Your task to perform on an android device: What's the weather today? Image 0: 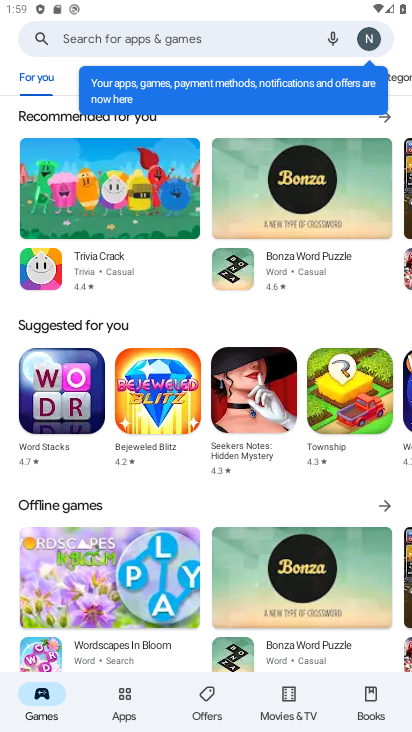
Step 0: press back button
Your task to perform on an android device: What's the weather today? Image 1: 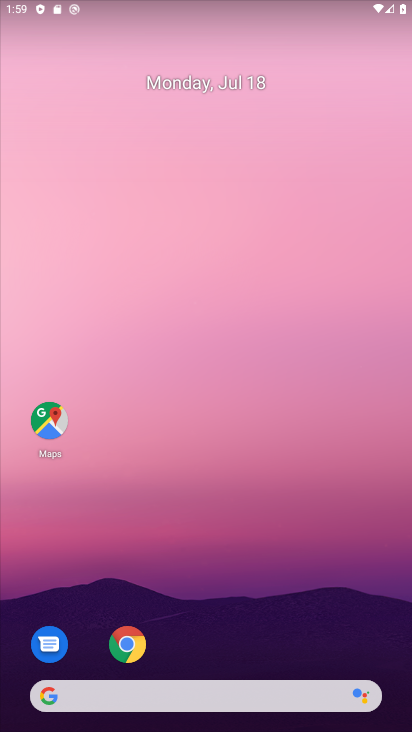
Step 1: drag from (278, 694) to (238, 255)
Your task to perform on an android device: What's the weather today? Image 2: 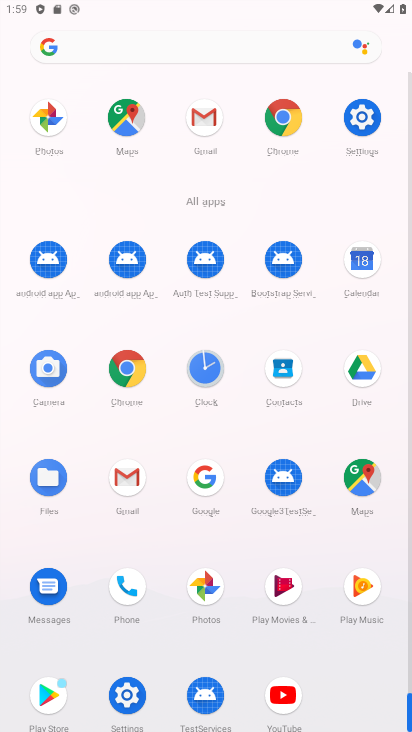
Step 2: click (295, 113)
Your task to perform on an android device: What's the weather today? Image 3: 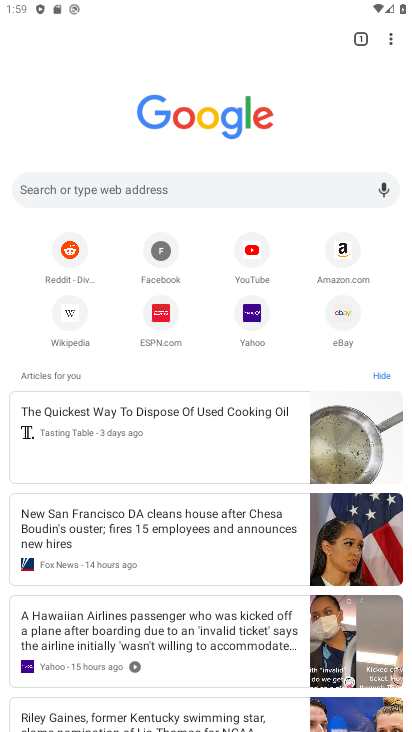
Step 3: click (57, 179)
Your task to perform on an android device: What's the weather today? Image 4: 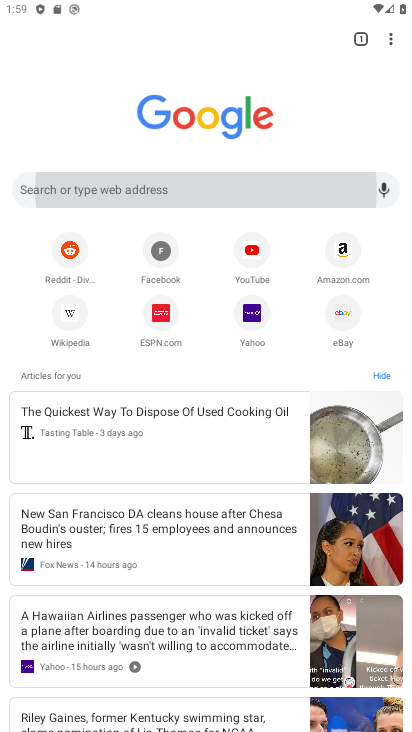
Step 4: click (57, 179)
Your task to perform on an android device: What's the weather today? Image 5: 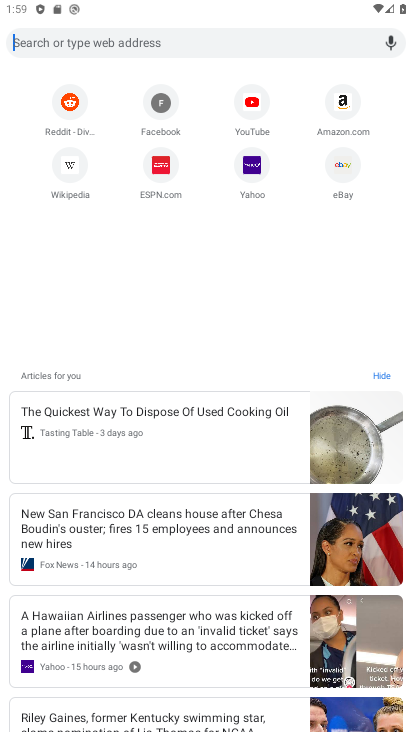
Step 5: click (57, 179)
Your task to perform on an android device: What's the weather today? Image 6: 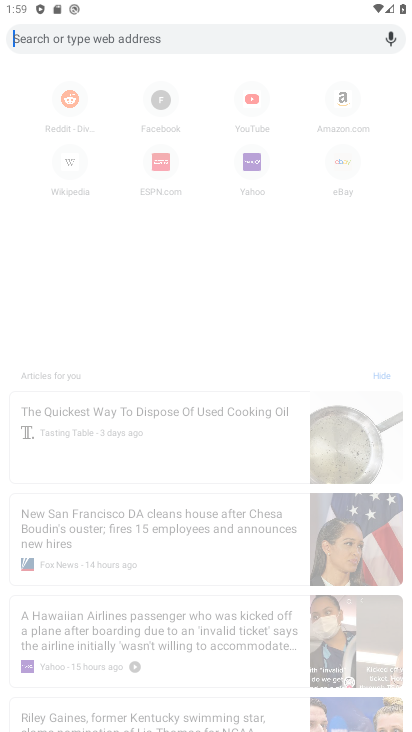
Step 6: click (57, 179)
Your task to perform on an android device: What's the weather today? Image 7: 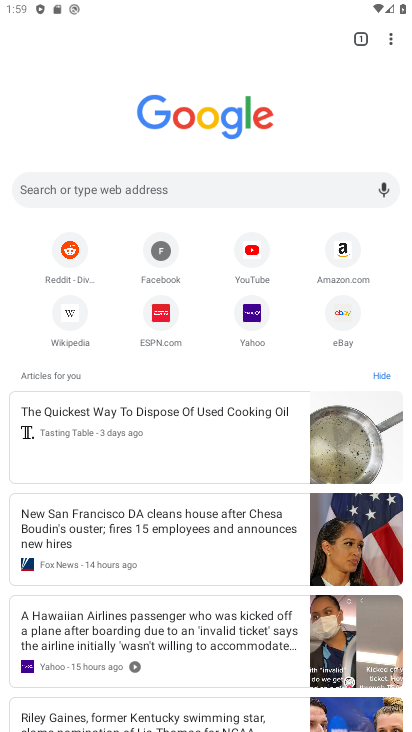
Step 7: click (66, 189)
Your task to perform on an android device: What's the weather today? Image 8: 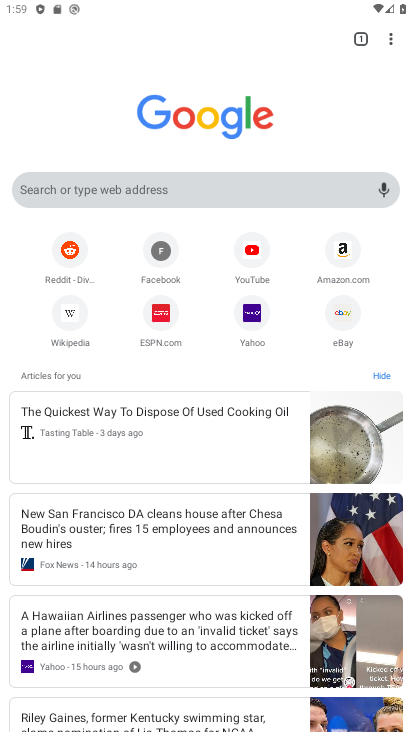
Step 8: click (66, 189)
Your task to perform on an android device: What's the weather today? Image 9: 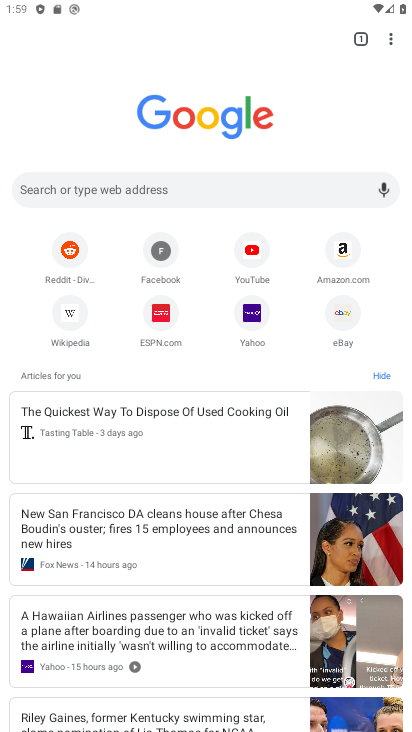
Step 9: click (41, 184)
Your task to perform on an android device: What's the weather today? Image 10: 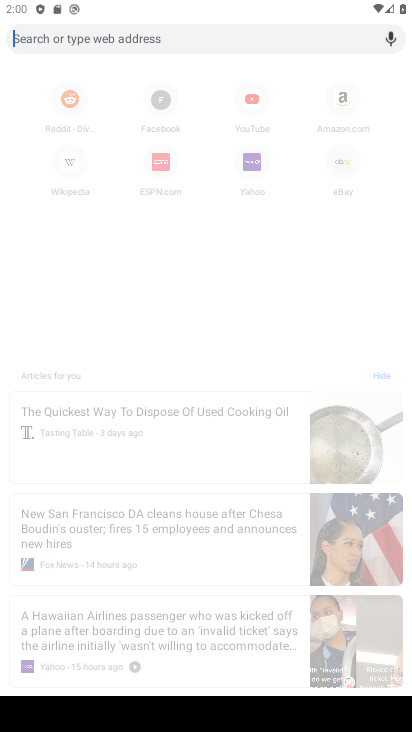
Step 10: type "what's the weatjher today?"
Your task to perform on an android device: What's the weather today? Image 11: 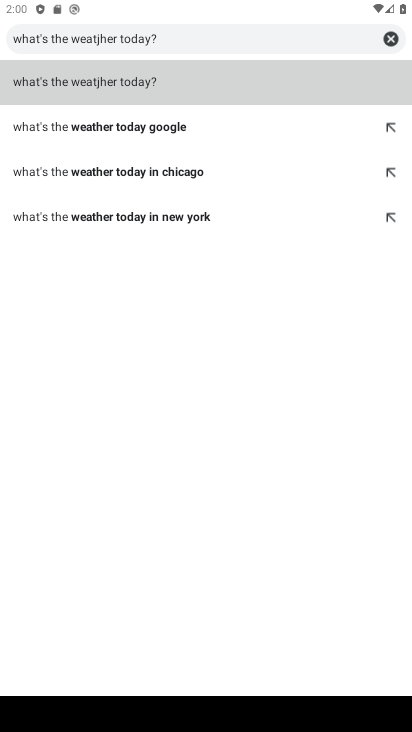
Step 11: click (103, 93)
Your task to perform on an android device: What's the weather today? Image 12: 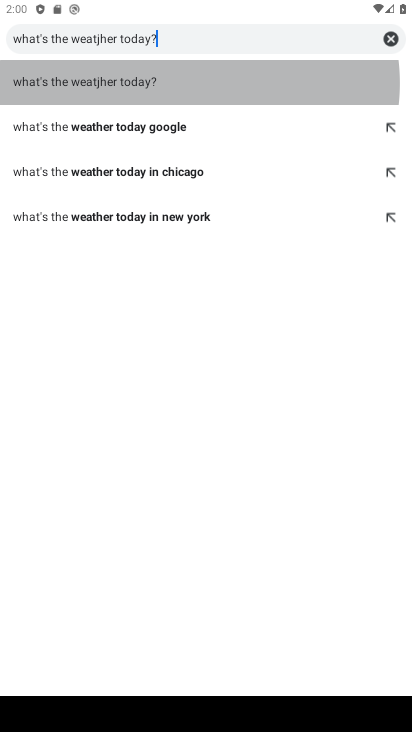
Step 12: click (106, 88)
Your task to perform on an android device: What's the weather today? Image 13: 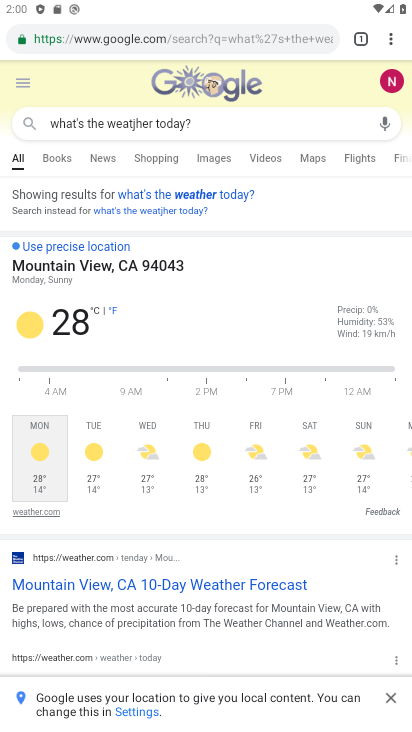
Step 13: click (182, 189)
Your task to perform on an android device: What's the weather today? Image 14: 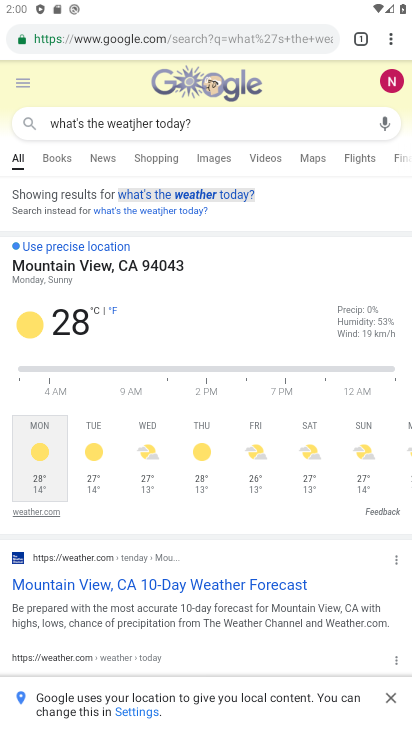
Step 14: click (182, 189)
Your task to perform on an android device: What's the weather today? Image 15: 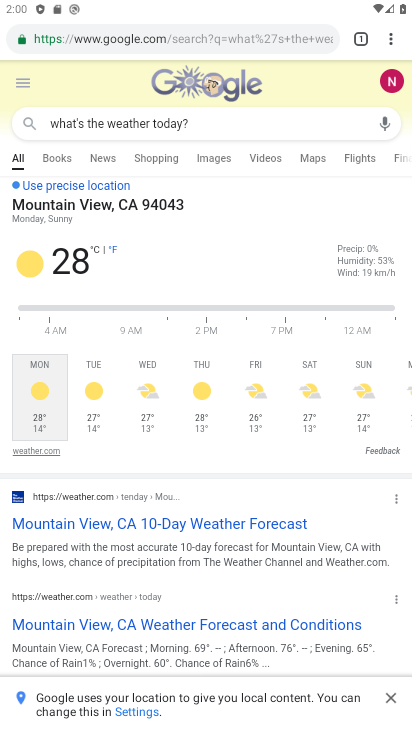
Step 15: click (183, 189)
Your task to perform on an android device: What's the weather today? Image 16: 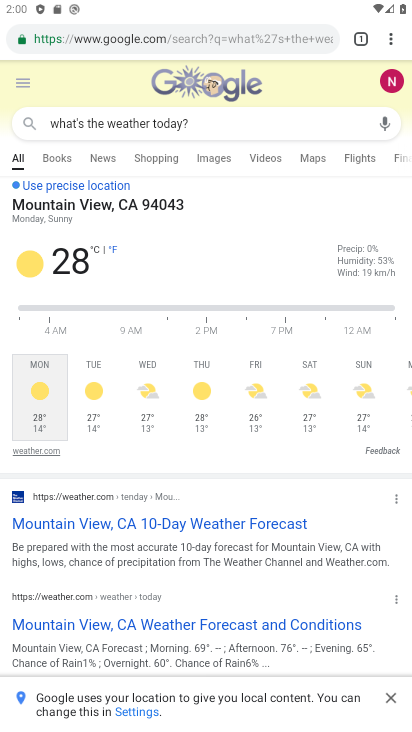
Step 16: click (174, 197)
Your task to perform on an android device: What's the weather today? Image 17: 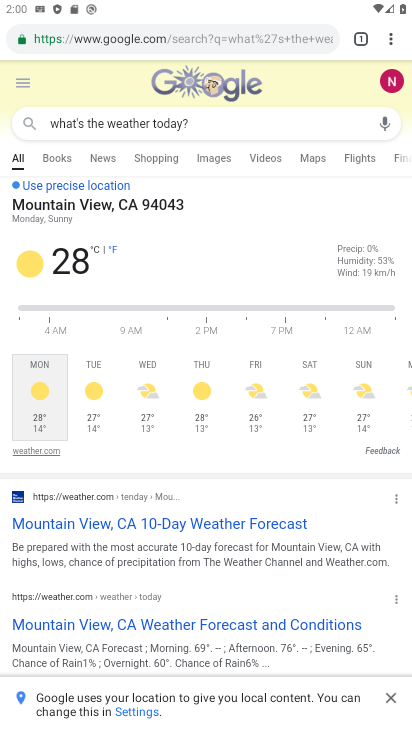
Step 17: click (174, 197)
Your task to perform on an android device: What's the weather today? Image 18: 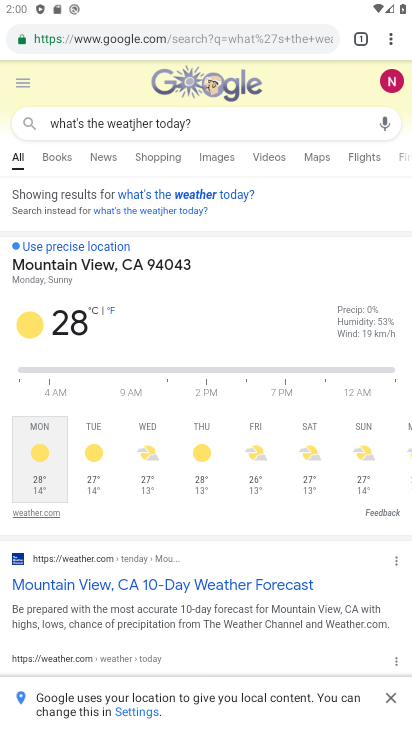
Step 18: task complete